Your task to perform on an android device: Go to settings Image 0: 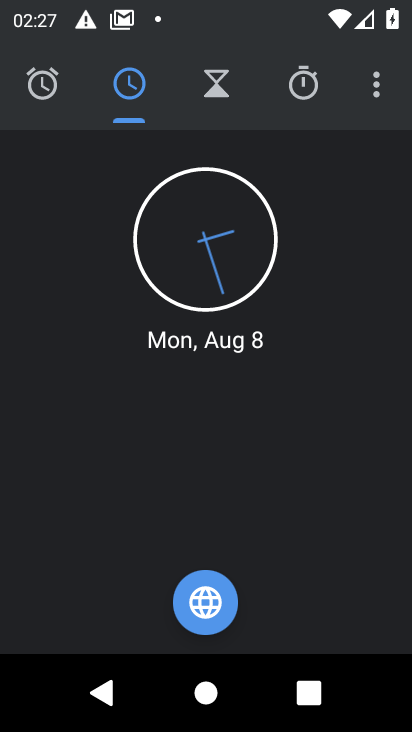
Step 0: press home button
Your task to perform on an android device: Go to settings Image 1: 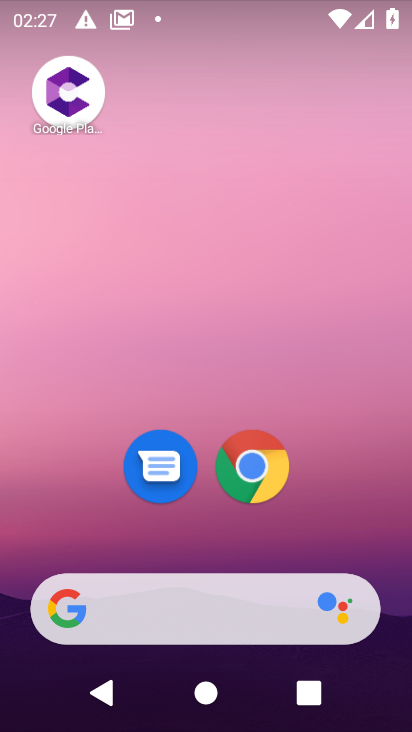
Step 1: drag from (239, 608) to (249, 99)
Your task to perform on an android device: Go to settings Image 2: 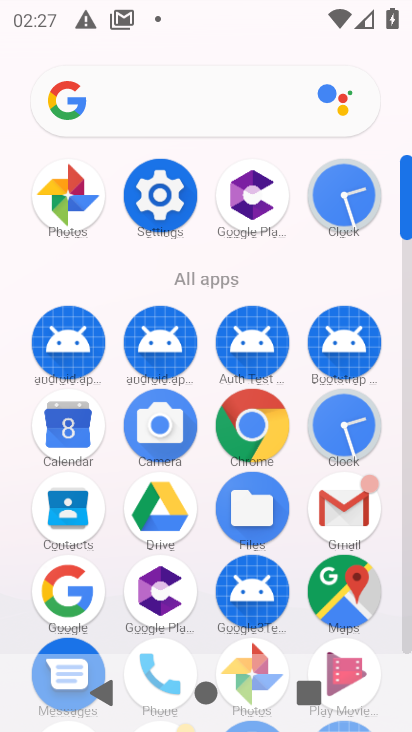
Step 2: click (153, 163)
Your task to perform on an android device: Go to settings Image 3: 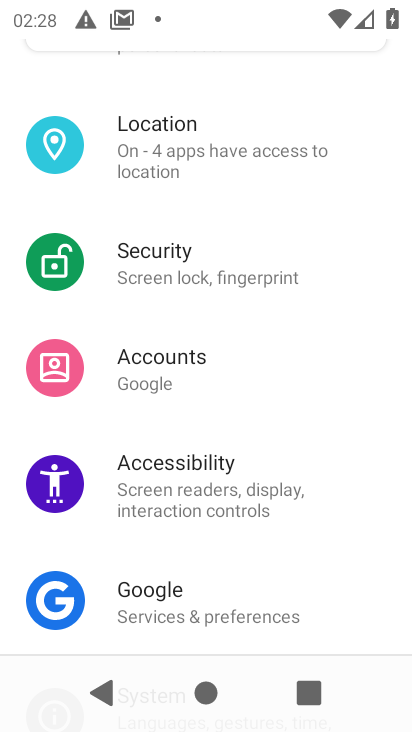
Step 3: task complete